Your task to perform on an android device: open app "Facebook" (install if not already installed) Image 0: 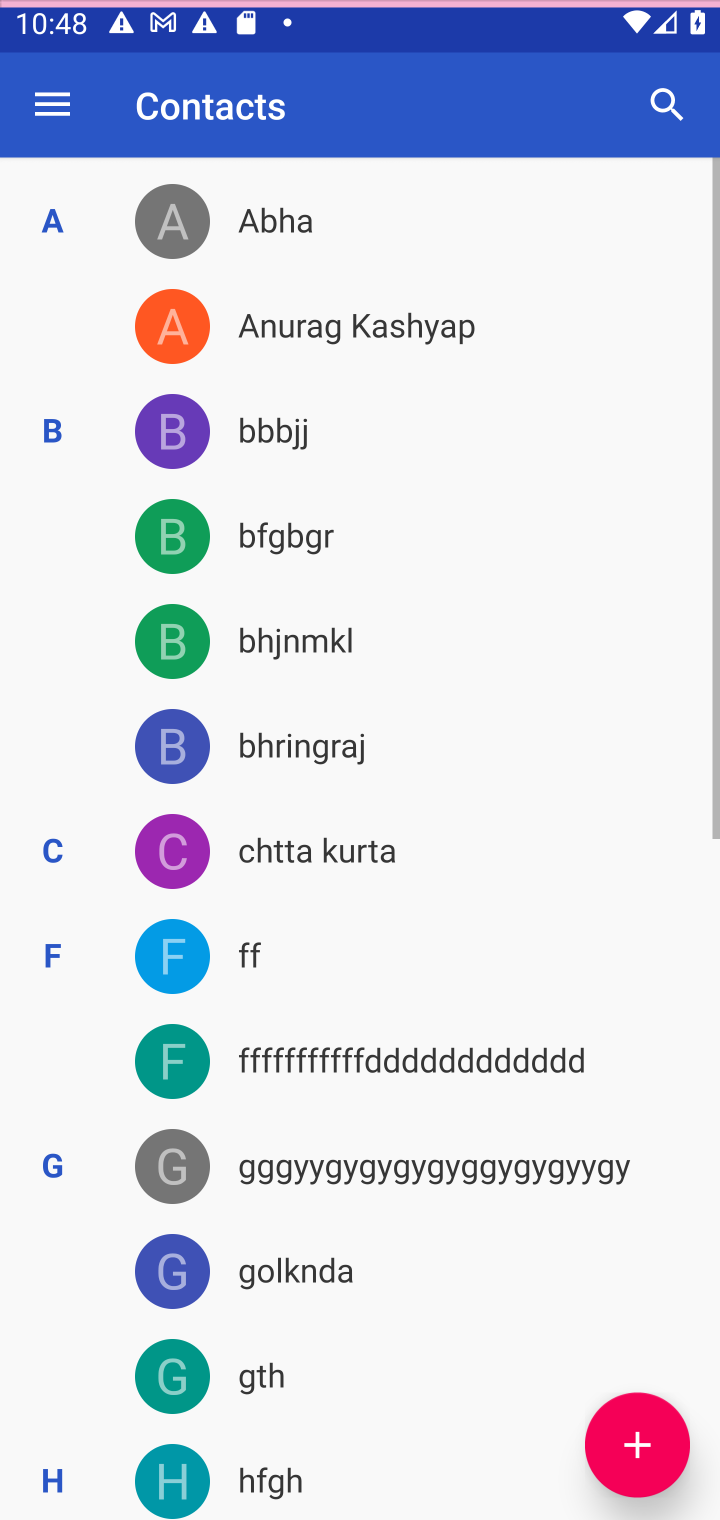
Step 0: press home button
Your task to perform on an android device: open app "Facebook" (install if not already installed) Image 1: 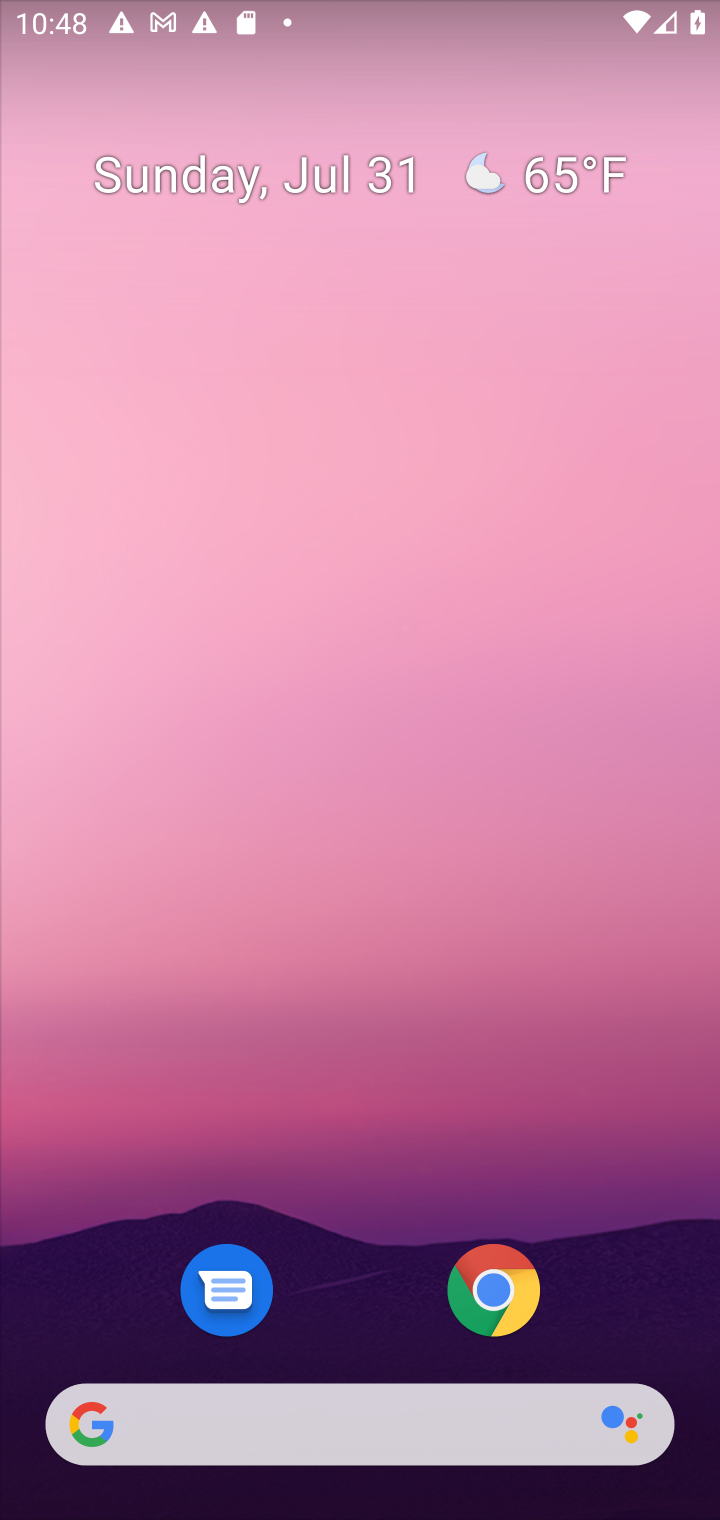
Step 1: press home button
Your task to perform on an android device: open app "Facebook" (install if not already installed) Image 2: 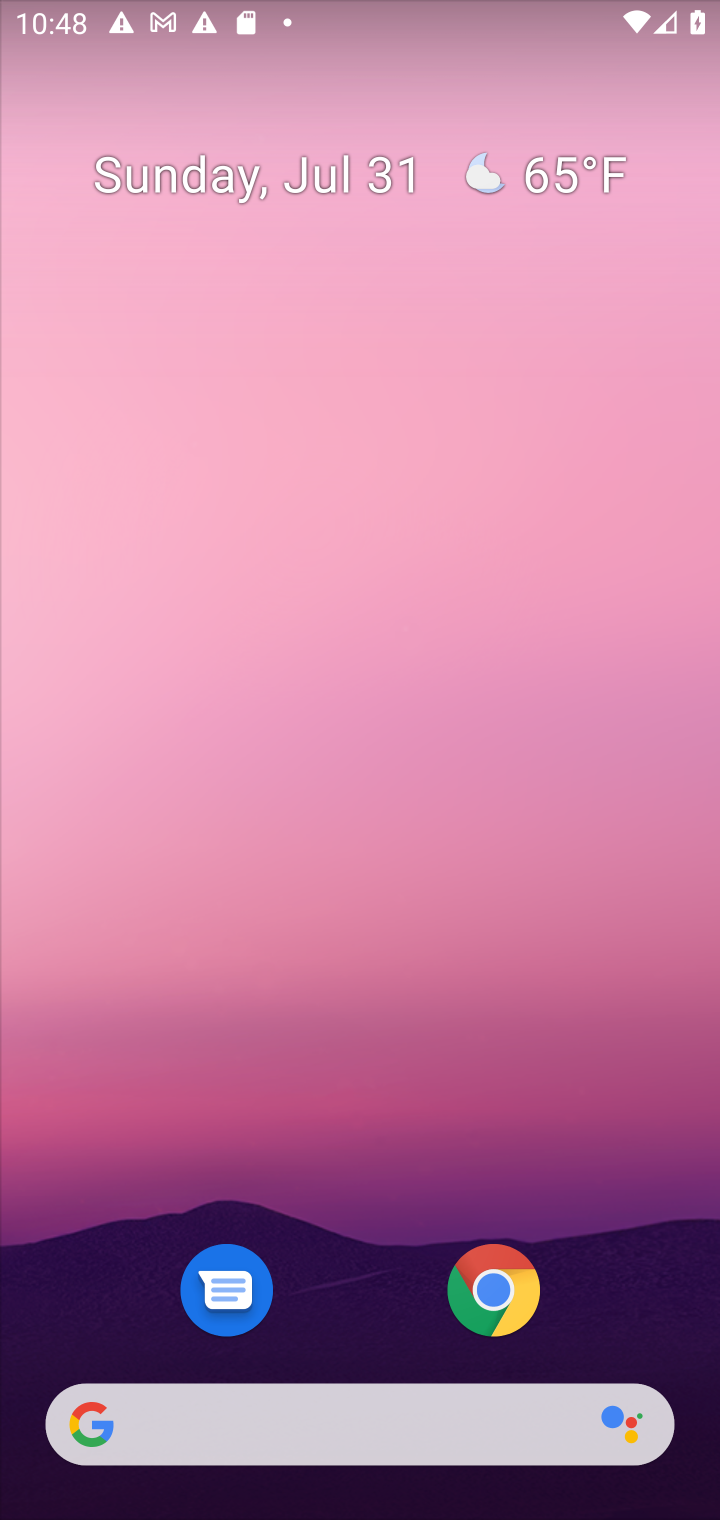
Step 2: drag from (601, 1310) to (610, 155)
Your task to perform on an android device: open app "Facebook" (install if not already installed) Image 3: 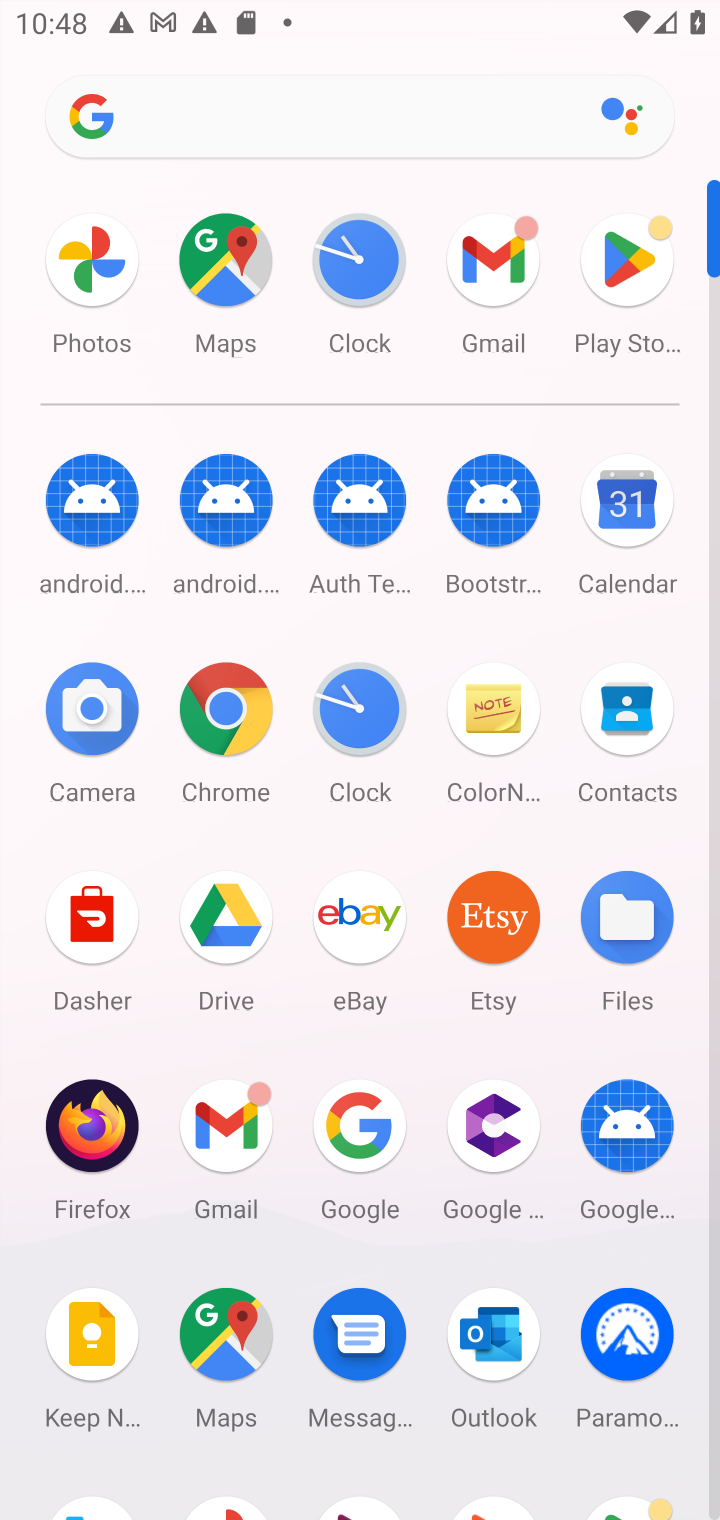
Step 3: click (636, 270)
Your task to perform on an android device: open app "Facebook" (install if not already installed) Image 4: 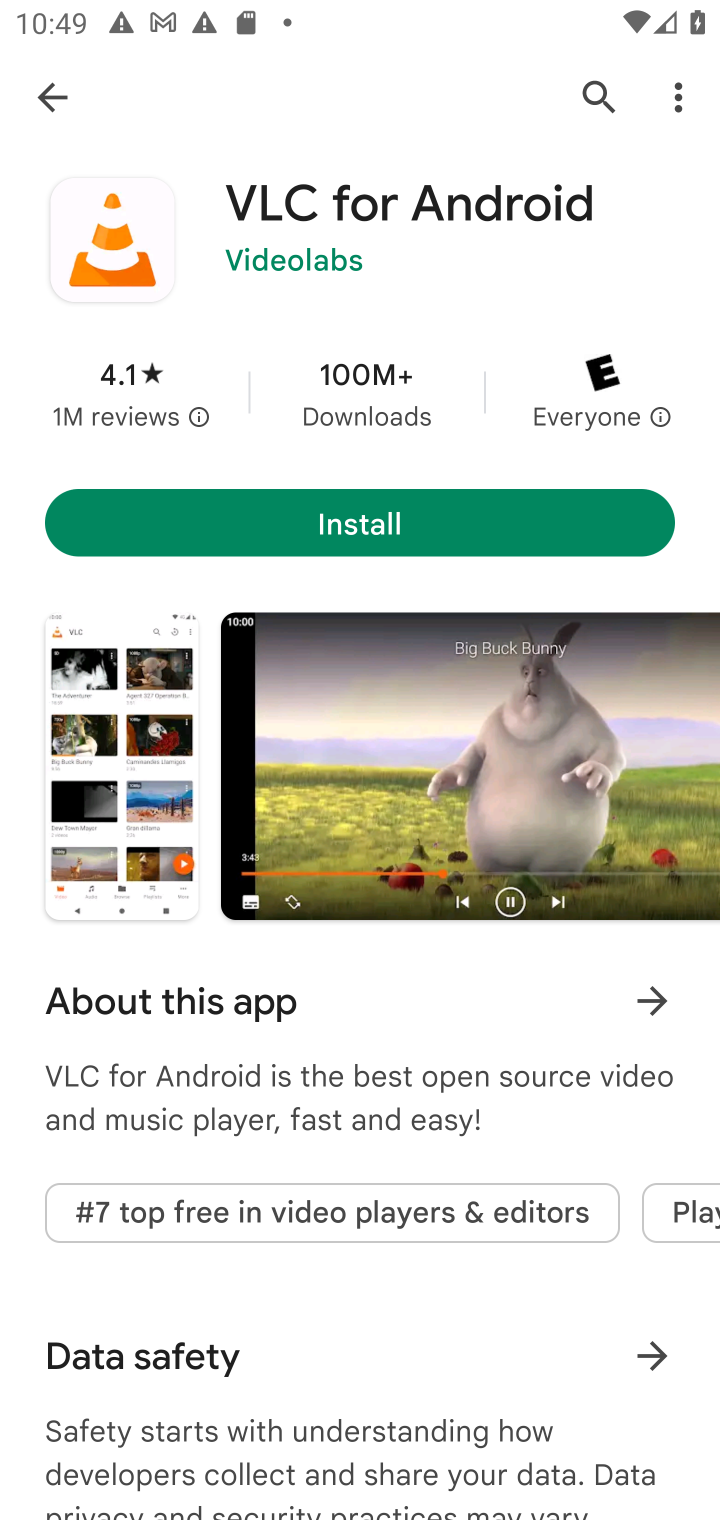
Step 4: click (592, 107)
Your task to perform on an android device: open app "Facebook" (install if not already installed) Image 5: 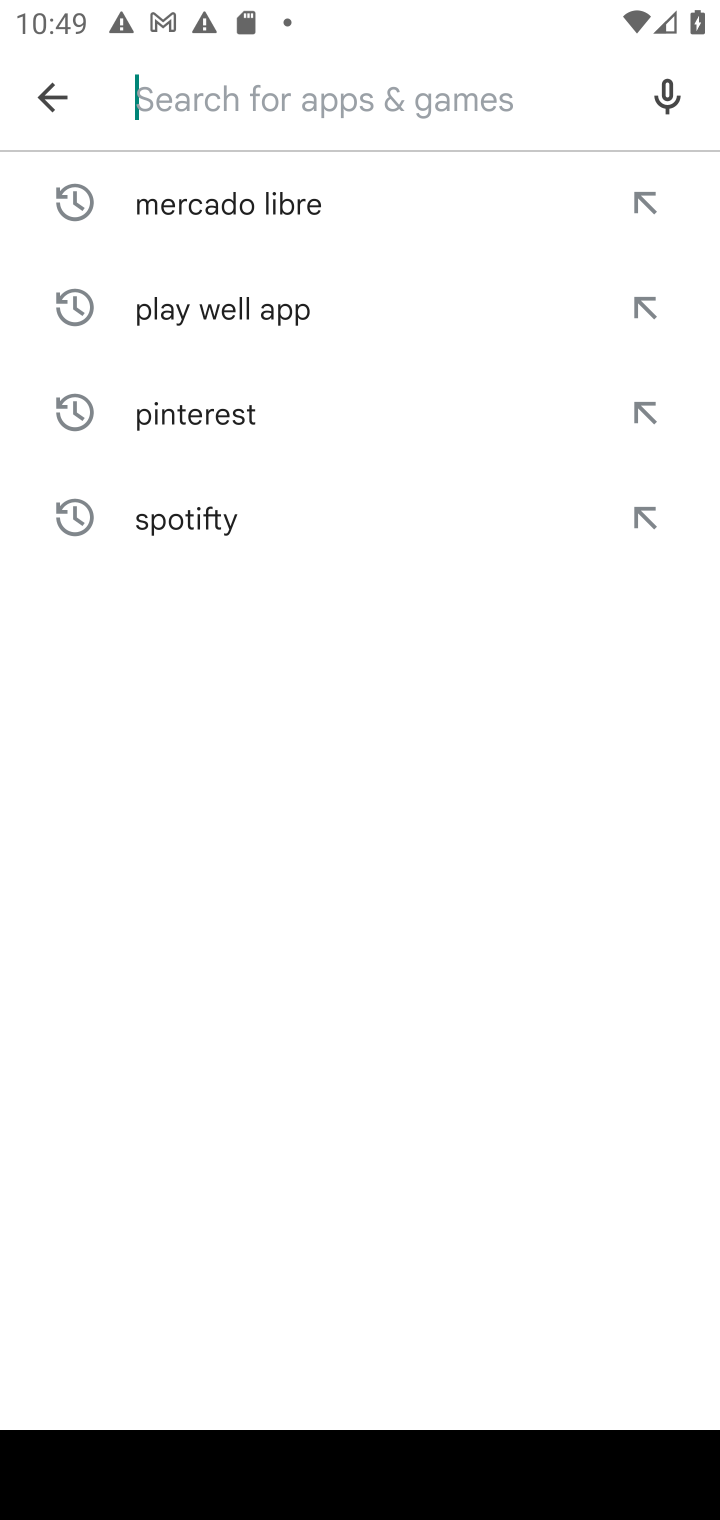
Step 5: click (478, 106)
Your task to perform on an android device: open app "Facebook" (install if not already installed) Image 6: 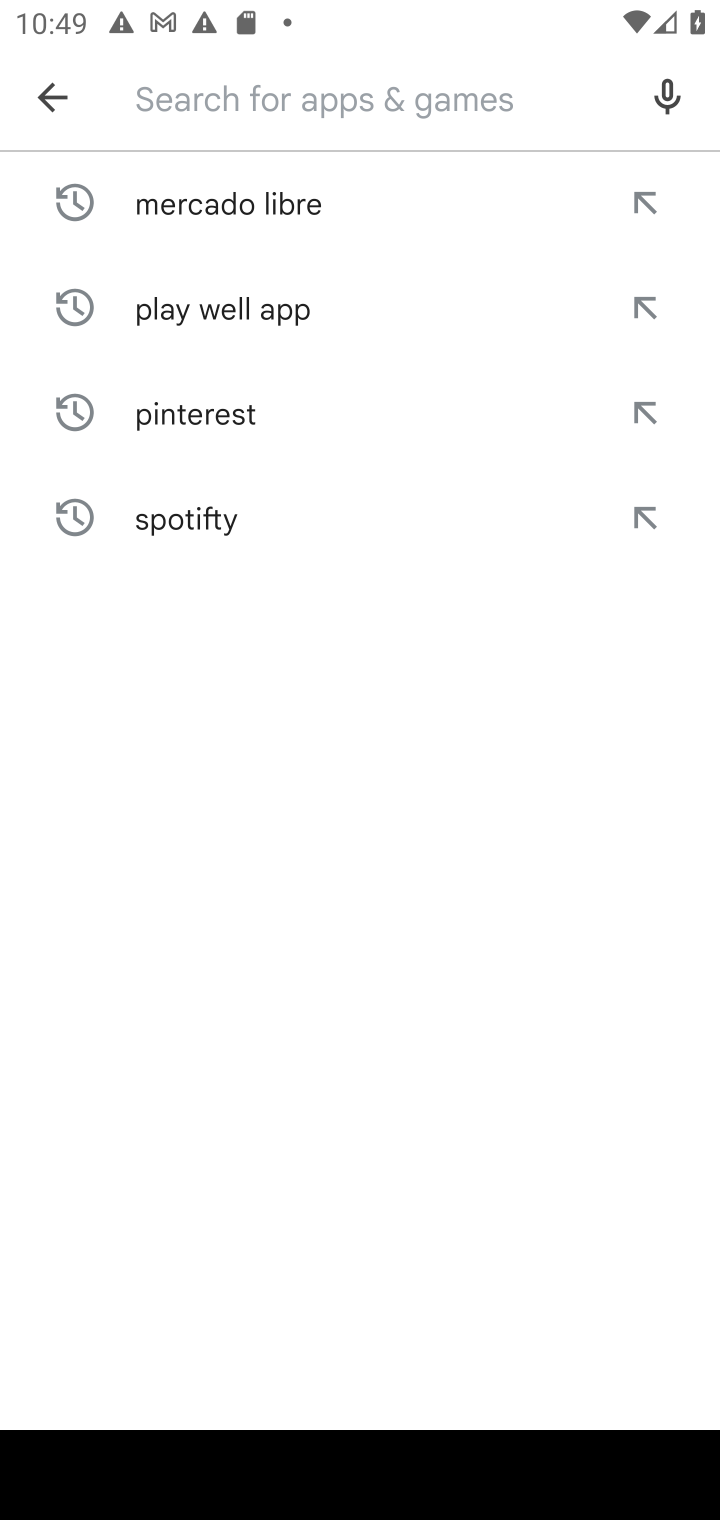
Step 6: type "facebook"
Your task to perform on an android device: open app "Facebook" (install if not already installed) Image 7: 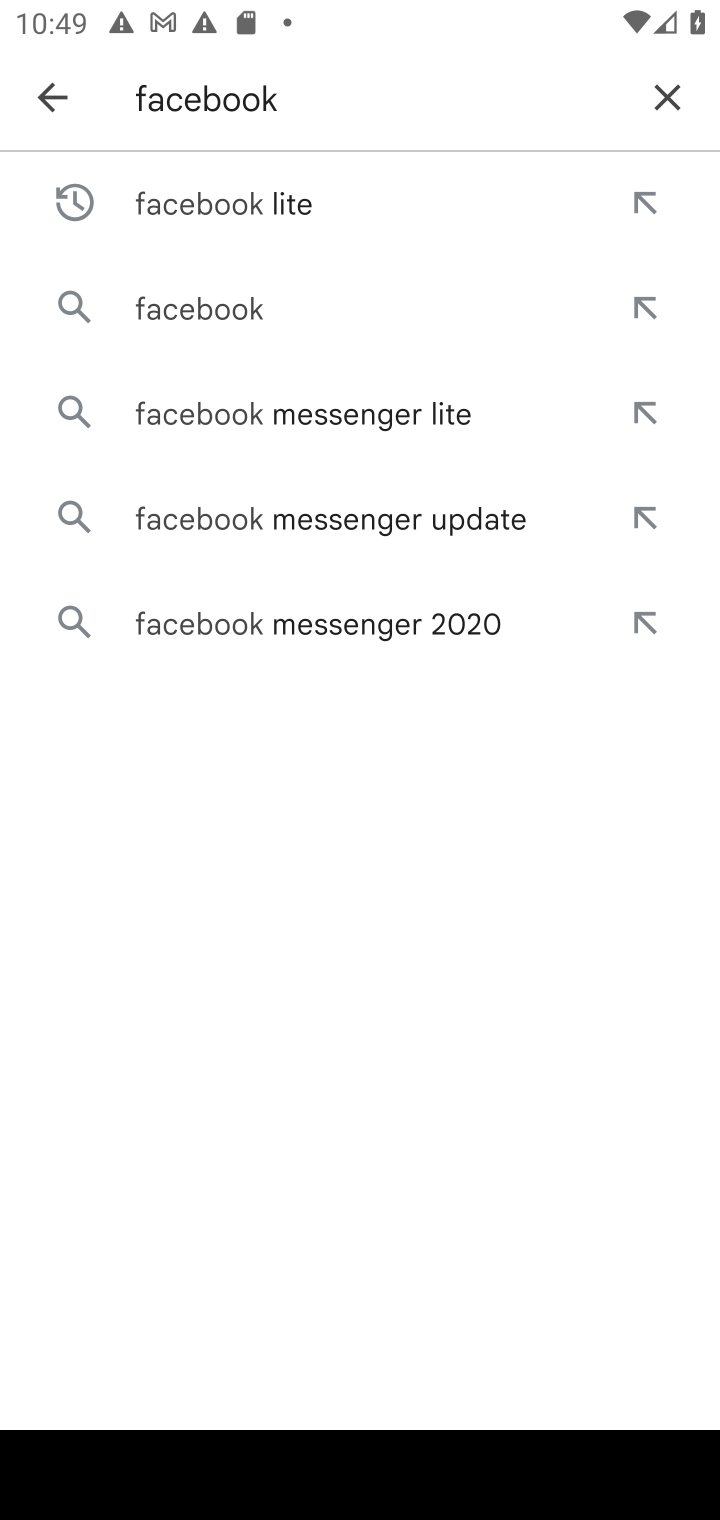
Step 7: click (257, 325)
Your task to perform on an android device: open app "Facebook" (install if not already installed) Image 8: 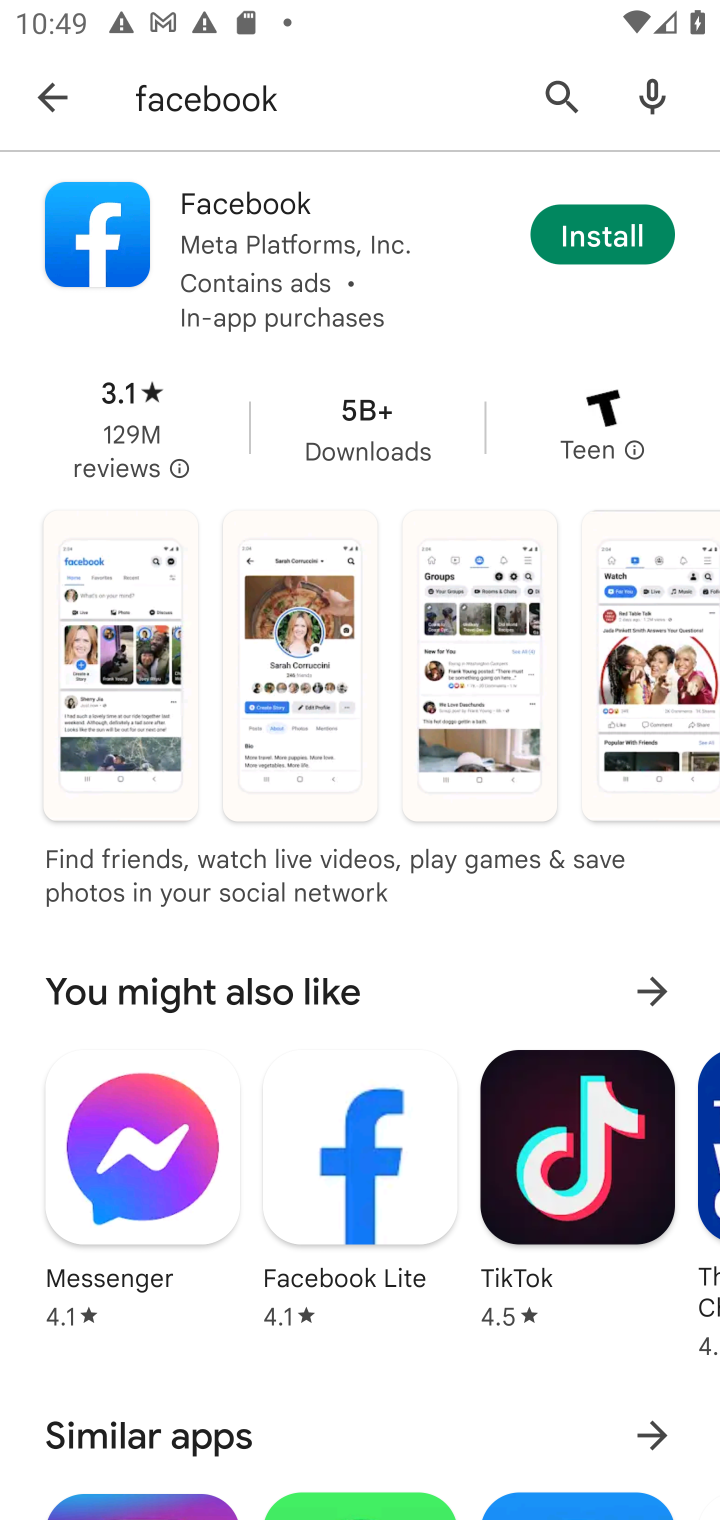
Step 8: click (585, 215)
Your task to perform on an android device: open app "Facebook" (install if not already installed) Image 9: 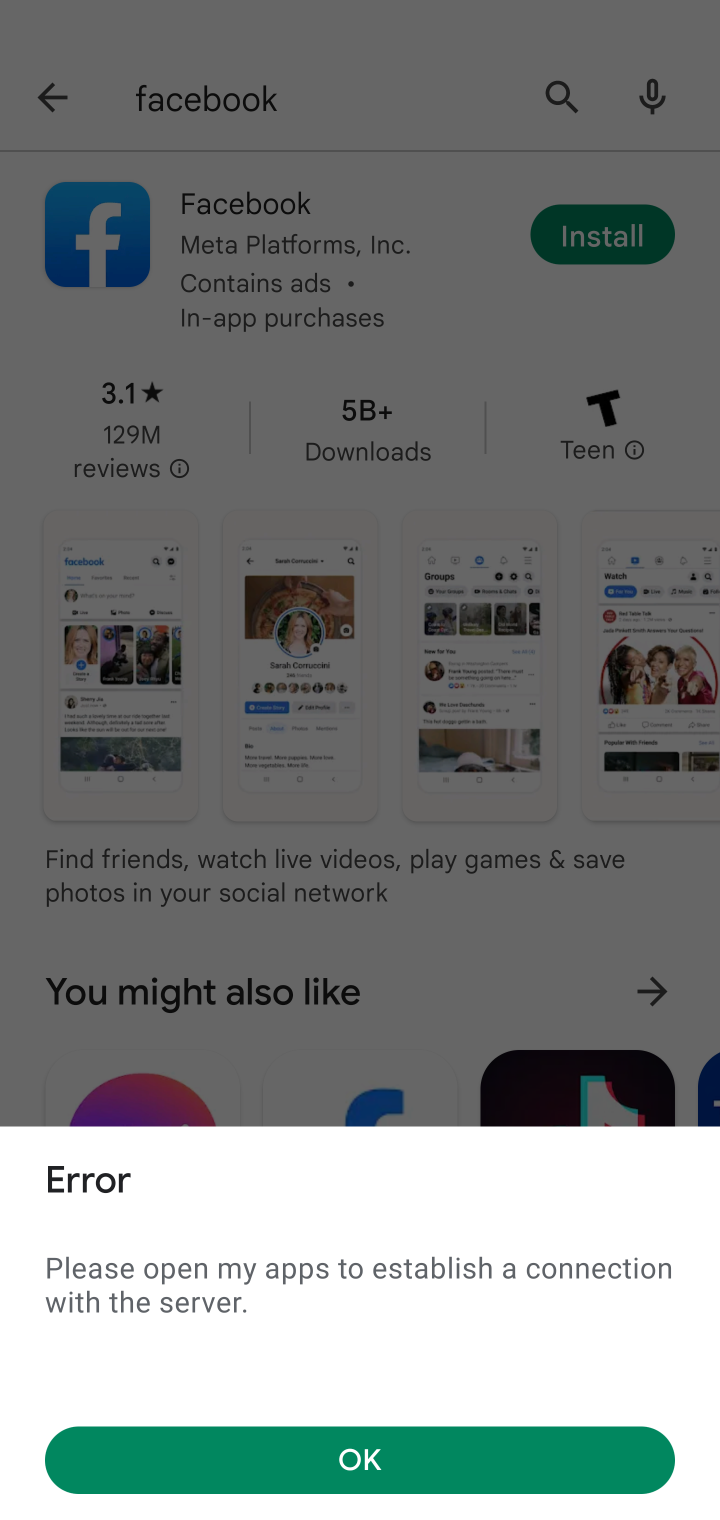
Step 9: task complete